Your task to perform on an android device: remove spam from my inbox in the gmail app Image 0: 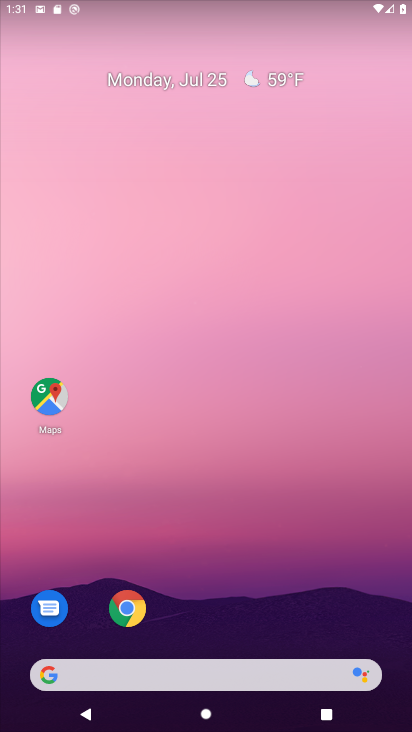
Step 0: drag from (361, 619) to (304, 59)
Your task to perform on an android device: remove spam from my inbox in the gmail app Image 1: 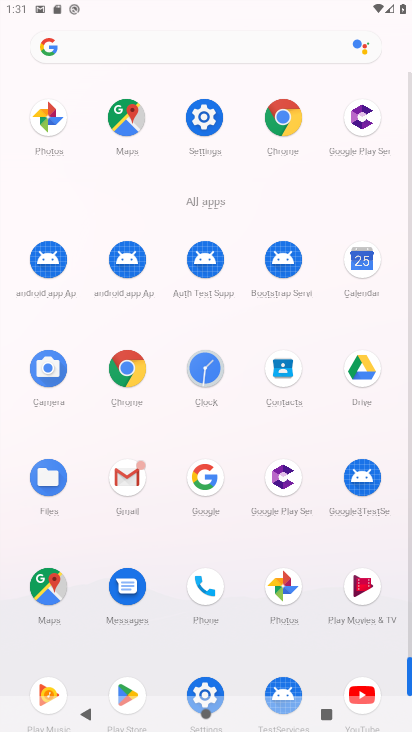
Step 1: click (127, 478)
Your task to perform on an android device: remove spam from my inbox in the gmail app Image 2: 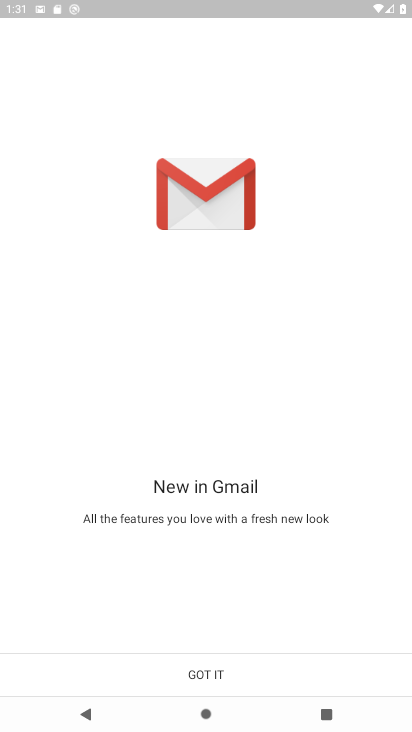
Step 2: click (206, 673)
Your task to perform on an android device: remove spam from my inbox in the gmail app Image 3: 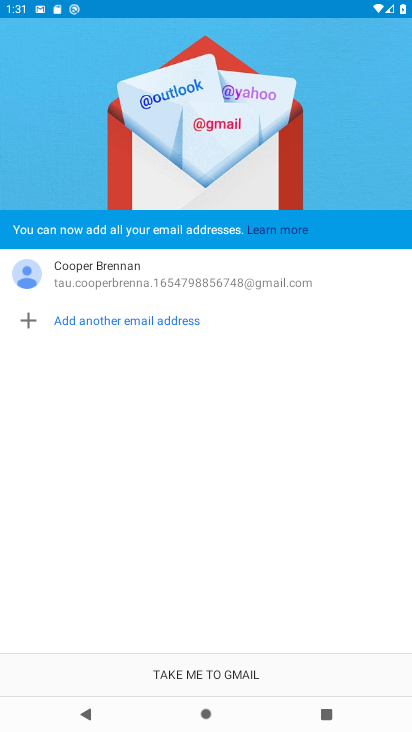
Step 3: click (206, 673)
Your task to perform on an android device: remove spam from my inbox in the gmail app Image 4: 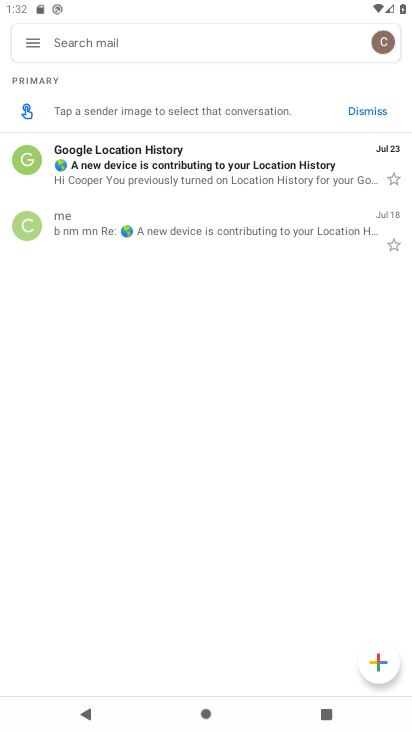
Step 4: click (30, 43)
Your task to perform on an android device: remove spam from my inbox in the gmail app Image 5: 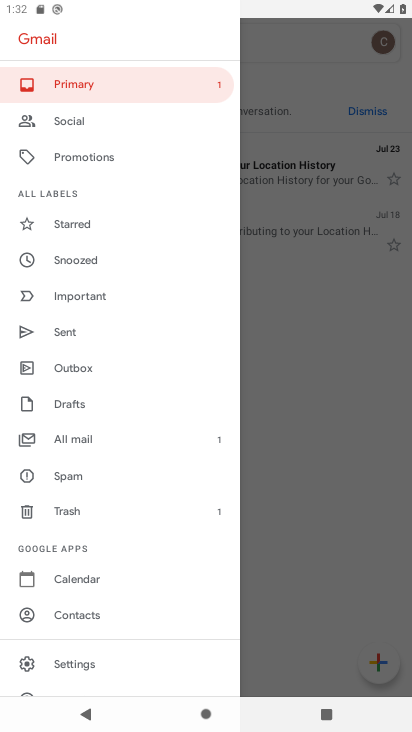
Step 5: click (70, 469)
Your task to perform on an android device: remove spam from my inbox in the gmail app Image 6: 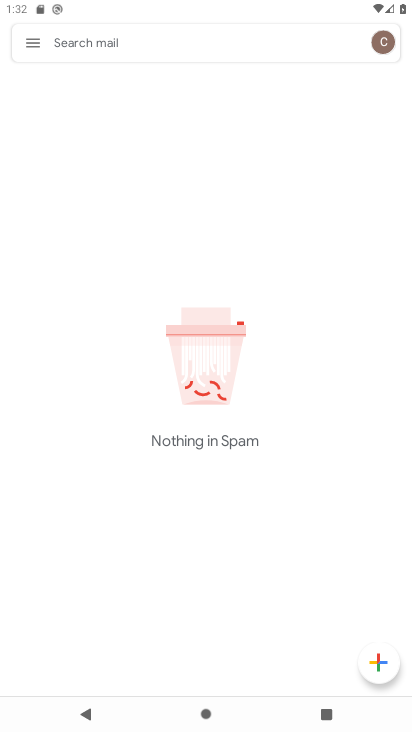
Step 6: task complete